Your task to perform on an android device: turn smart compose on in the gmail app Image 0: 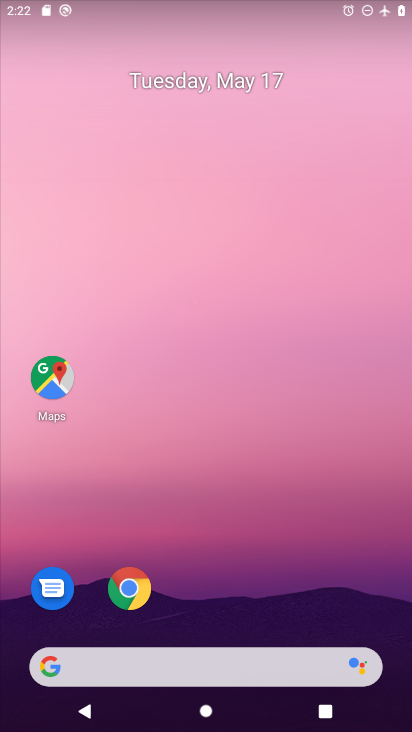
Step 0: drag from (188, 611) to (212, 154)
Your task to perform on an android device: turn smart compose on in the gmail app Image 1: 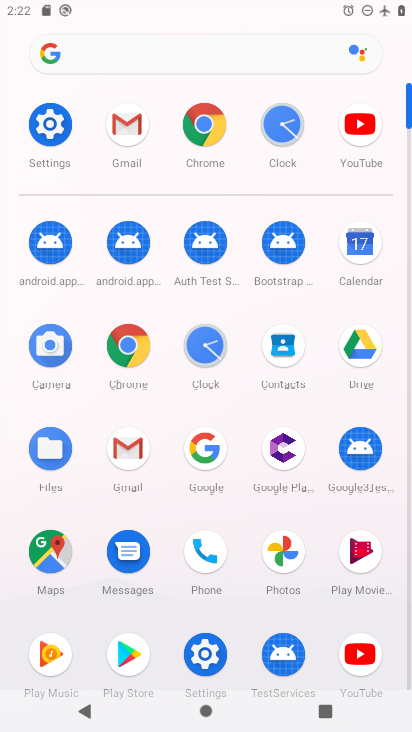
Step 1: click (139, 108)
Your task to perform on an android device: turn smart compose on in the gmail app Image 2: 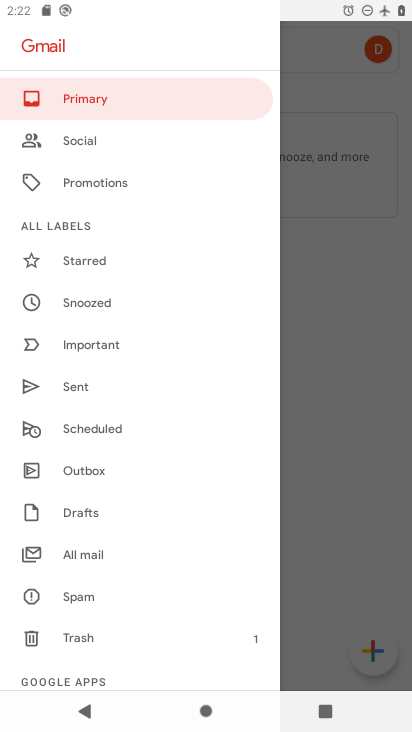
Step 2: drag from (112, 649) to (150, 200)
Your task to perform on an android device: turn smart compose on in the gmail app Image 3: 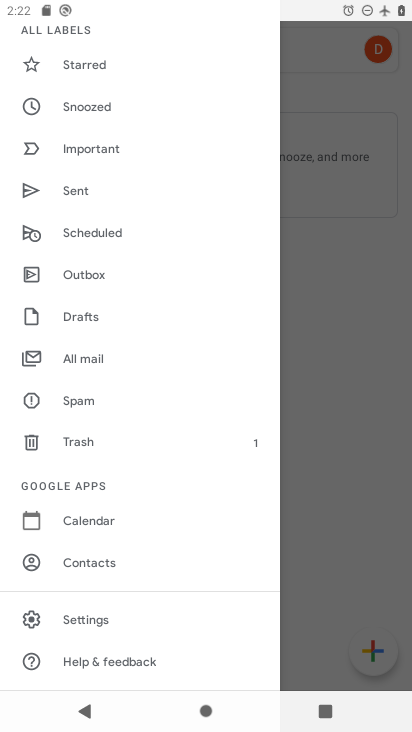
Step 3: click (92, 618)
Your task to perform on an android device: turn smart compose on in the gmail app Image 4: 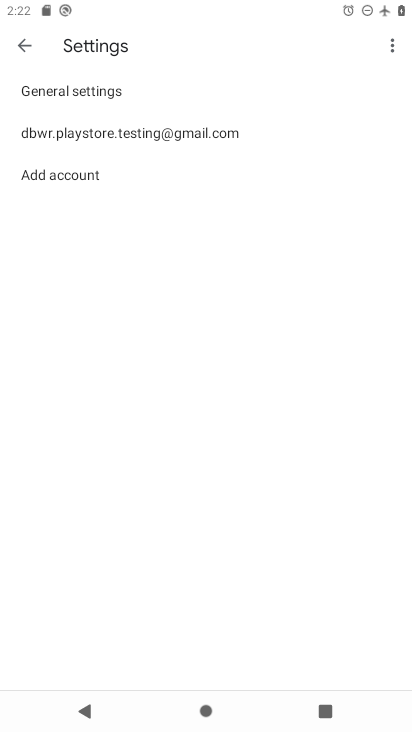
Step 4: click (107, 131)
Your task to perform on an android device: turn smart compose on in the gmail app Image 5: 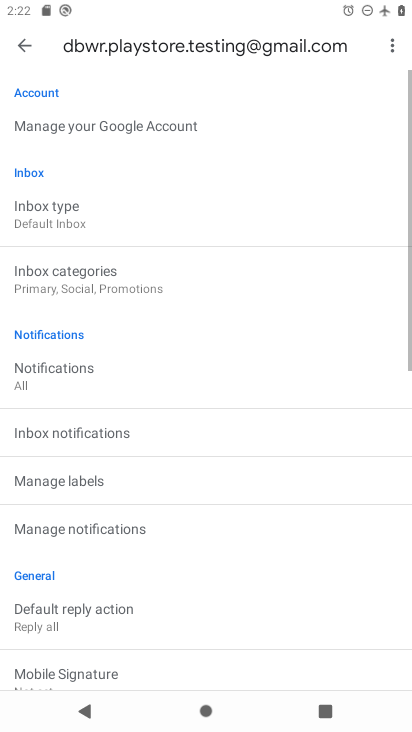
Step 5: task complete